Your task to perform on an android device: open sync settings in chrome Image 0: 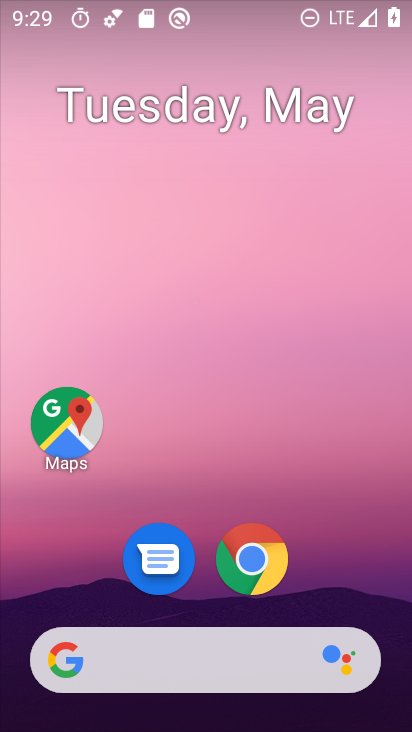
Step 0: drag from (388, 609) to (245, 44)
Your task to perform on an android device: open sync settings in chrome Image 1: 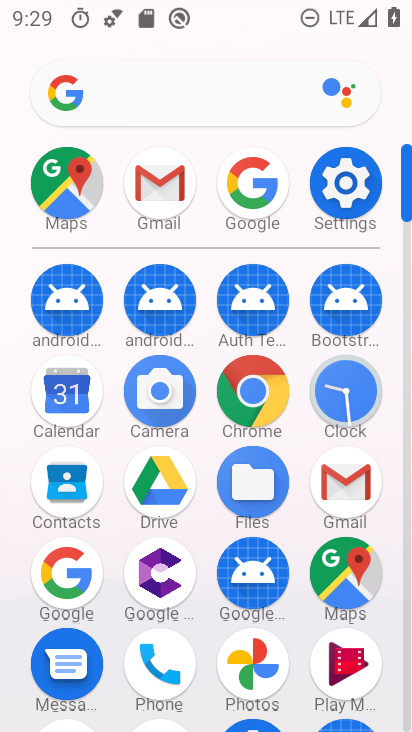
Step 1: click (264, 373)
Your task to perform on an android device: open sync settings in chrome Image 2: 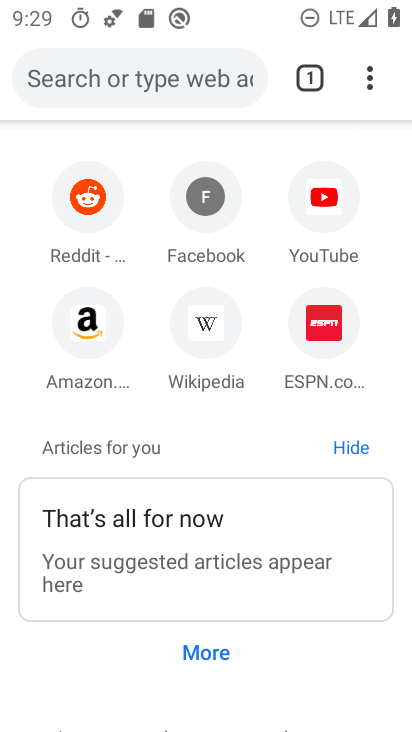
Step 2: click (375, 80)
Your task to perform on an android device: open sync settings in chrome Image 3: 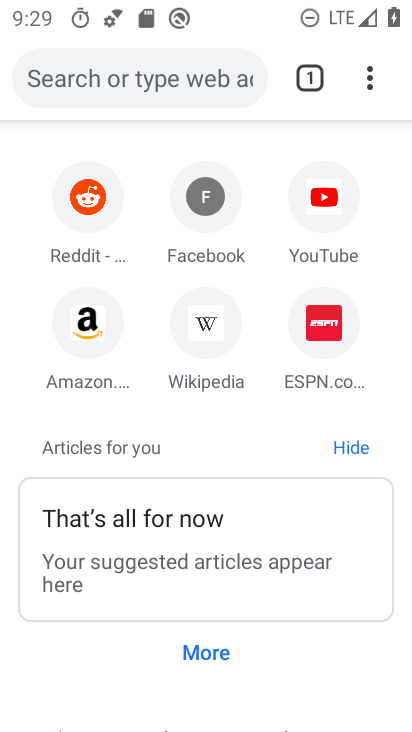
Step 3: click (370, 65)
Your task to perform on an android device: open sync settings in chrome Image 4: 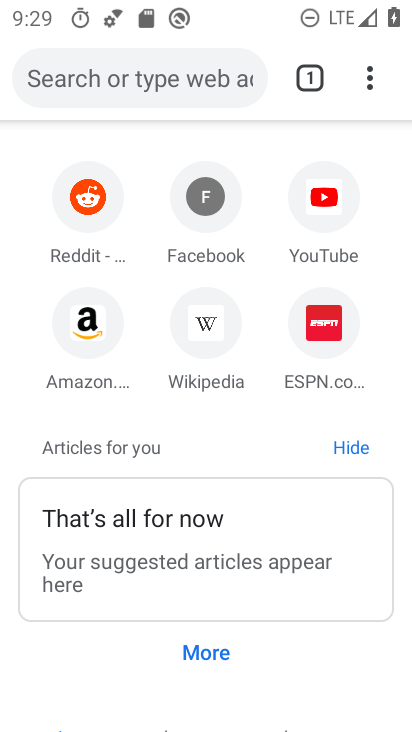
Step 4: click (366, 75)
Your task to perform on an android device: open sync settings in chrome Image 5: 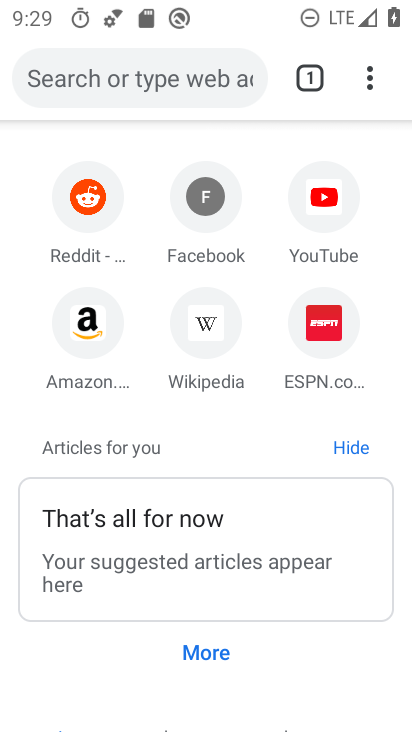
Step 5: click (363, 77)
Your task to perform on an android device: open sync settings in chrome Image 6: 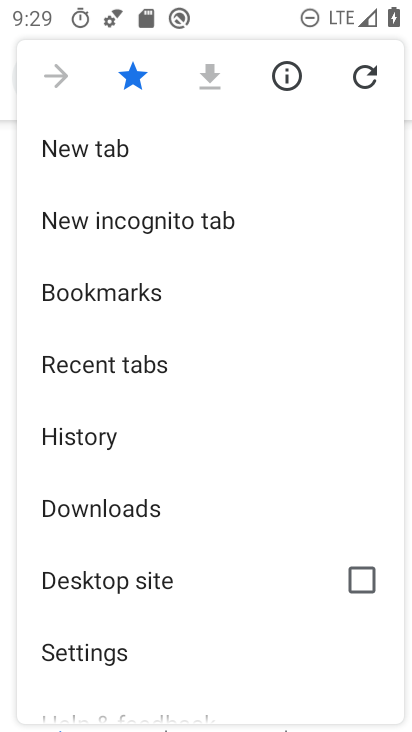
Step 6: click (139, 651)
Your task to perform on an android device: open sync settings in chrome Image 7: 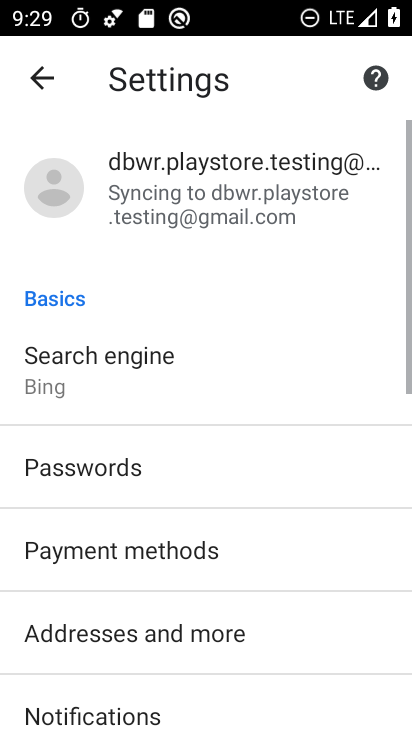
Step 7: drag from (139, 650) to (181, 77)
Your task to perform on an android device: open sync settings in chrome Image 8: 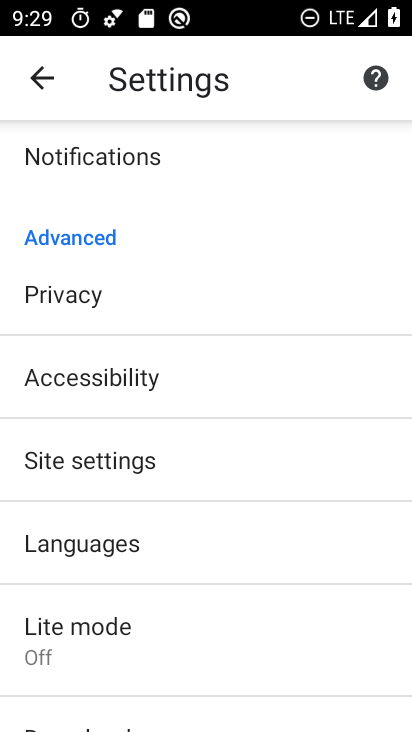
Step 8: click (207, 455)
Your task to perform on an android device: open sync settings in chrome Image 9: 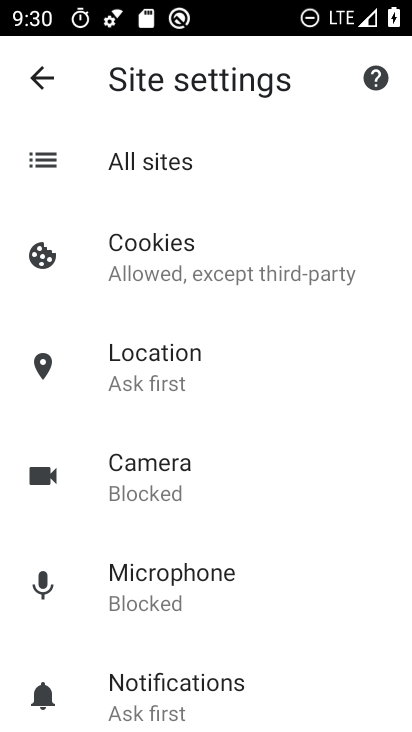
Step 9: drag from (223, 677) to (271, 179)
Your task to perform on an android device: open sync settings in chrome Image 10: 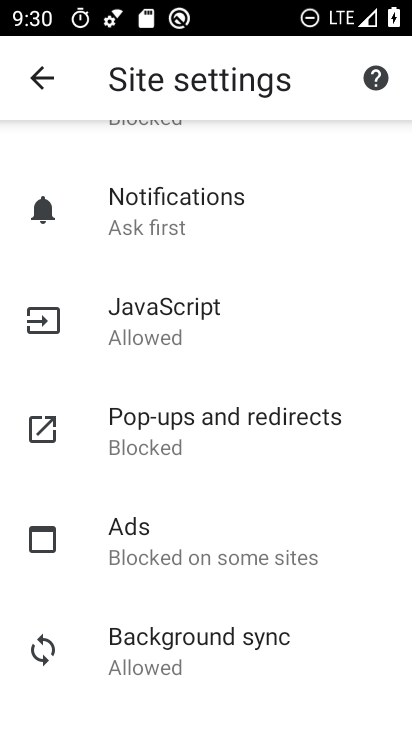
Step 10: click (202, 639)
Your task to perform on an android device: open sync settings in chrome Image 11: 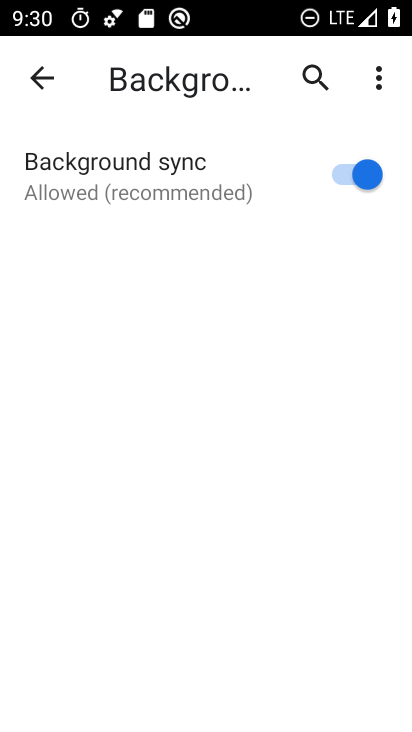
Step 11: task complete